Your task to perform on an android device: snooze an email in the gmail app Image 0: 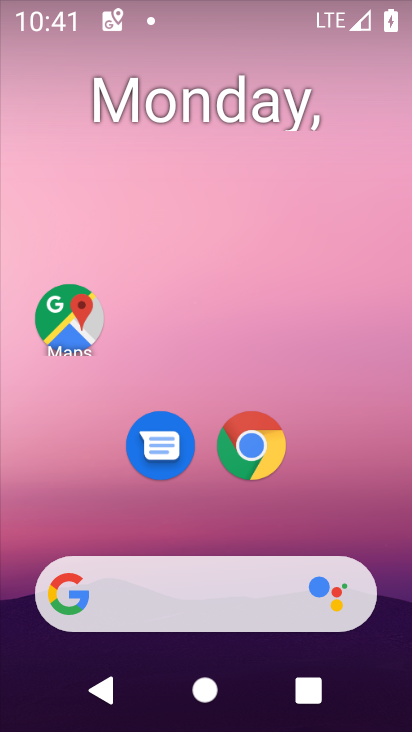
Step 0: drag from (256, 688) to (263, 353)
Your task to perform on an android device: snooze an email in the gmail app Image 1: 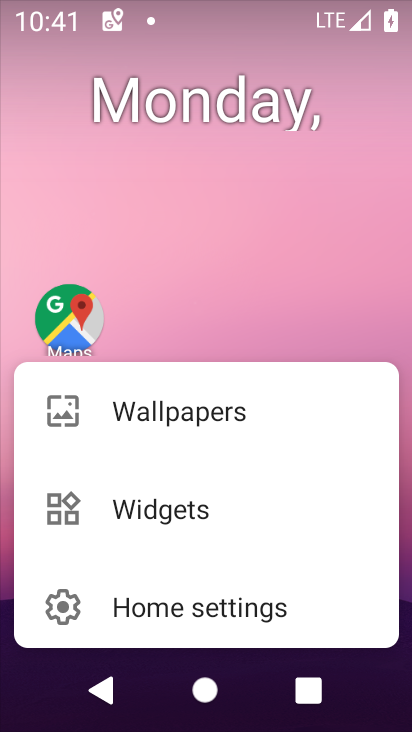
Step 1: click (261, 277)
Your task to perform on an android device: snooze an email in the gmail app Image 2: 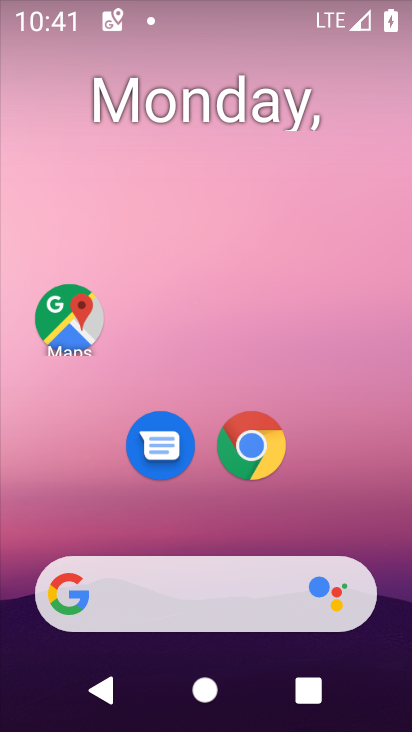
Step 2: drag from (262, 620) to (318, 7)
Your task to perform on an android device: snooze an email in the gmail app Image 3: 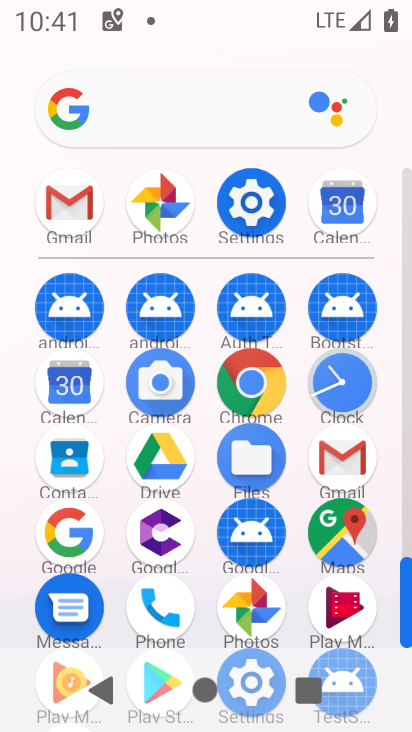
Step 3: click (91, 219)
Your task to perform on an android device: snooze an email in the gmail app Image 4: 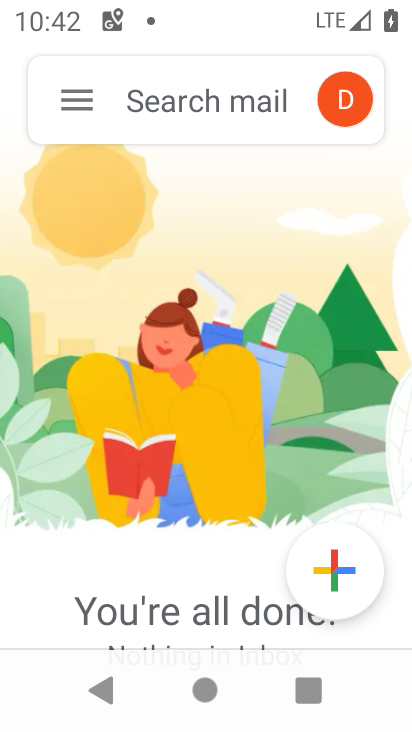
Step 4: task complete